Your task to perform on an android device: check data usage Image 0: 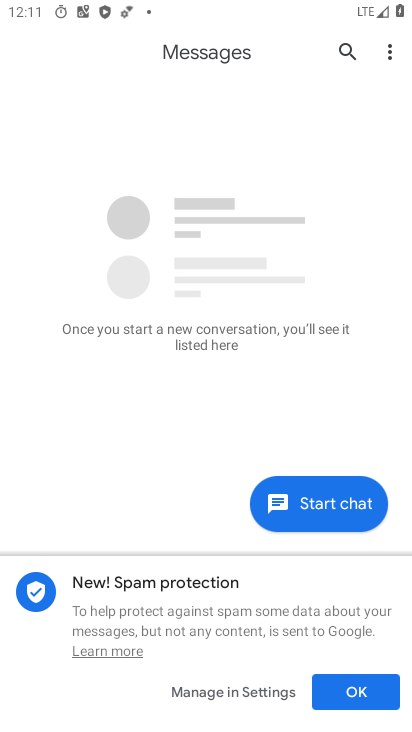
Step 0: press home button
Your task to perform on an android device: check data usage Image 1: 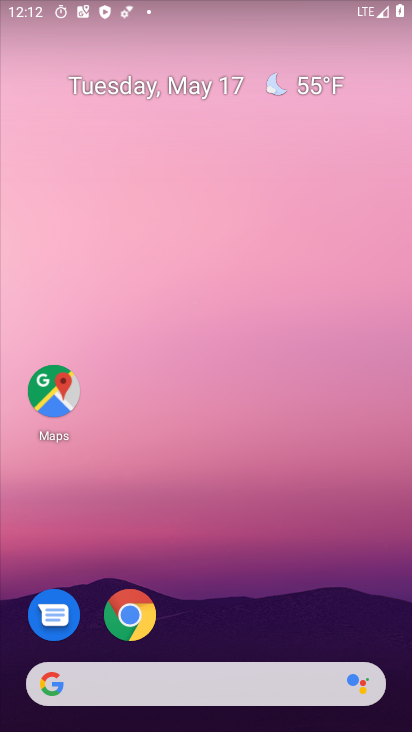
Step 1: drag from (271, 5) to (301, 640)
Your task to perform on an android device: check data usage Image 2: 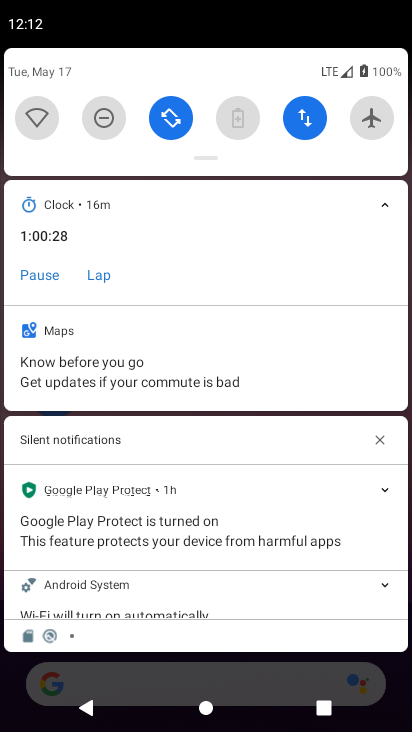
Step 2: click (294, 113)
Your task to perform on an android device: check data usage Image 3: 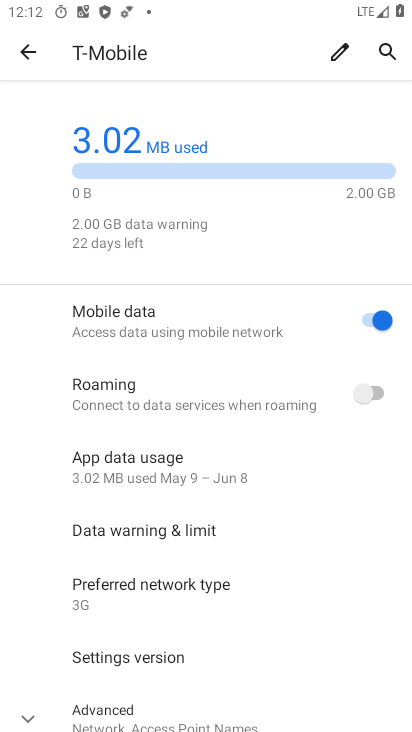
Step 3: task complete